Your task to perform on an android device: open a new tab in the chrome app Image 0: 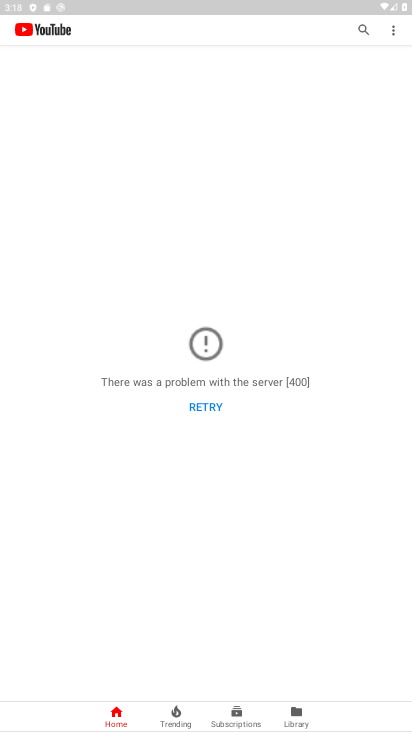
Step 0: press home button
Your task to perform on an android device: open a new tab in the chrome app Image 1: 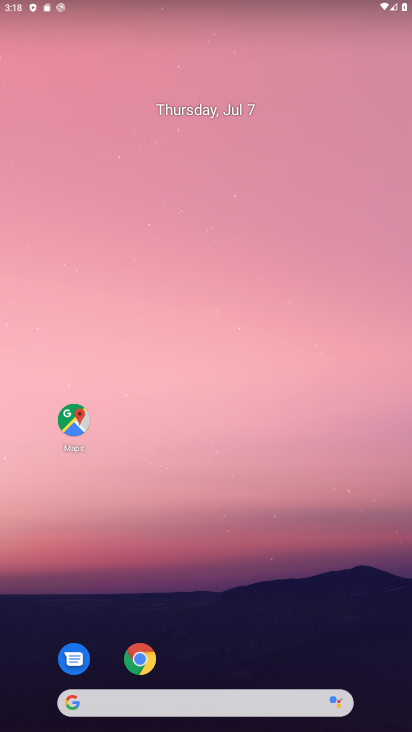
Step 1: click (138, 661)
Your task to perform on an android device: open a new tab in the chrome app Image 2: 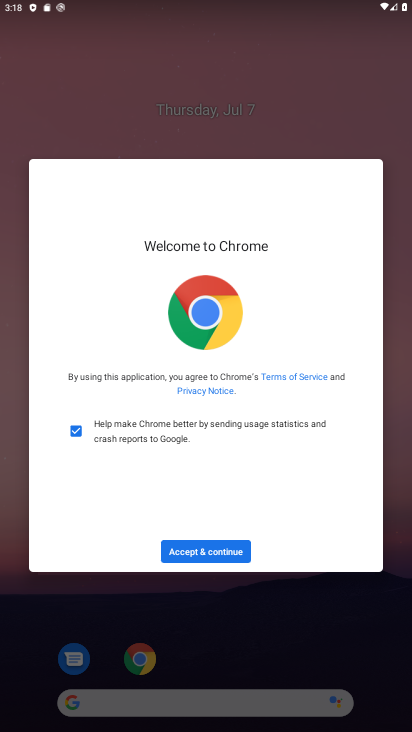
Step 2: click (221, 548)
Your task to perform on an android device: open a new tab in the chrome app Image 3: 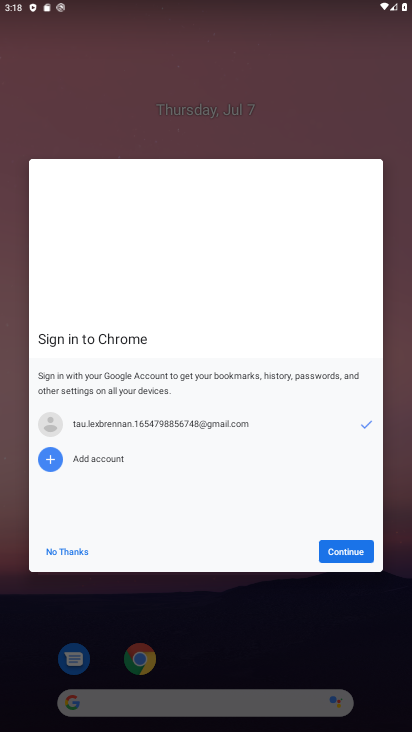
Step 3: click (344, 544)
Your task to perform on an android device: open a new tab in the chrome app Image 4: 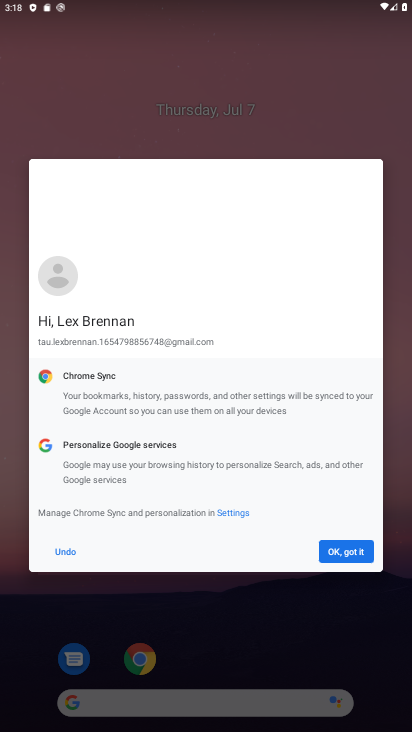
Step 4: click (344, 544)
Your task to perform on an android device: open a new tab in the chrome app Image 5: 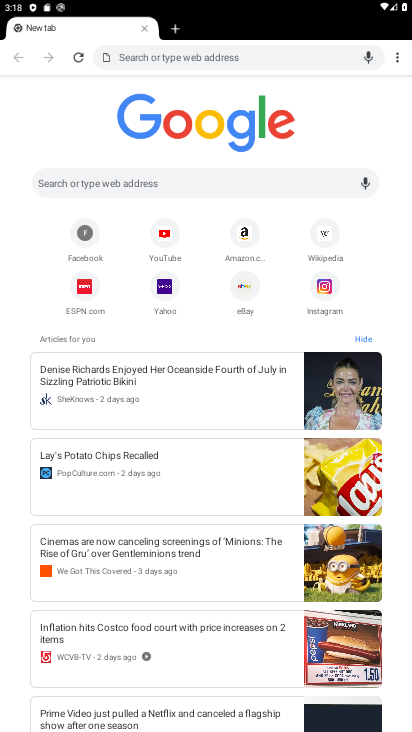
Step 5: drag from (395, 57) to (331, 53)
Your task to perform on an android device: open a new tab in the chrome app Image 6: 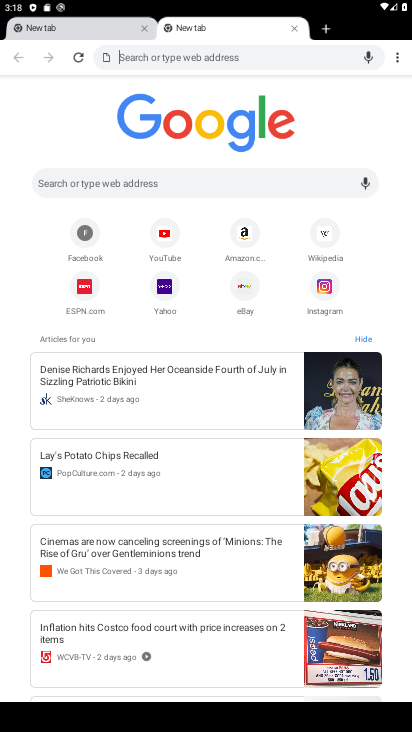
Step 6: click (318, 66)
Your task to perform on an android device: open a new tab in the chrome app Image 7: 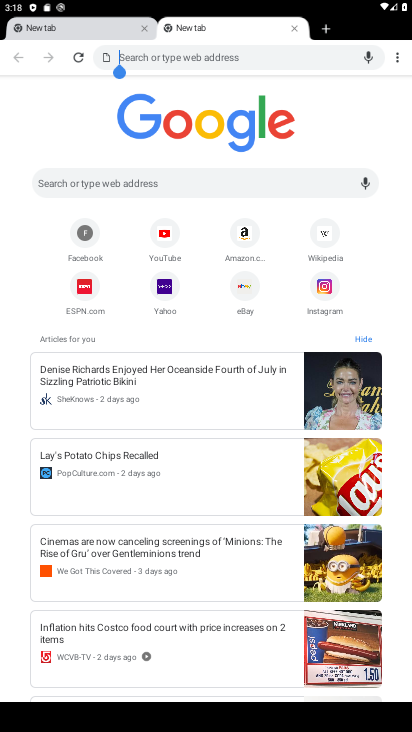
Step 7: click (341, 22)
Your task to perform on an android device: open a new tab in the chrome app Image 8: 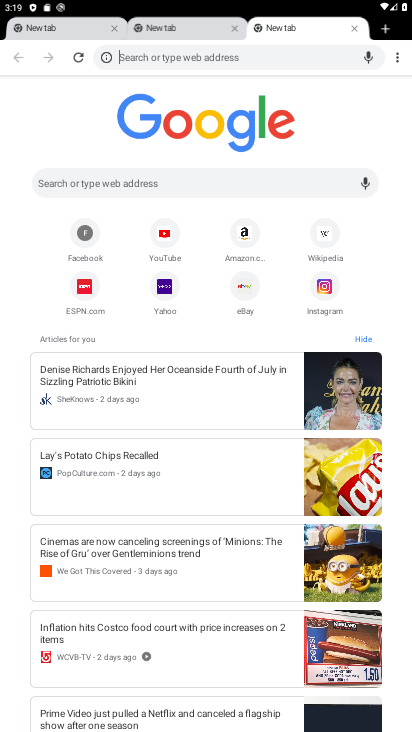
Step 8: task complete